Your task to perform on an android device: open sync settings in chrome Image 0: 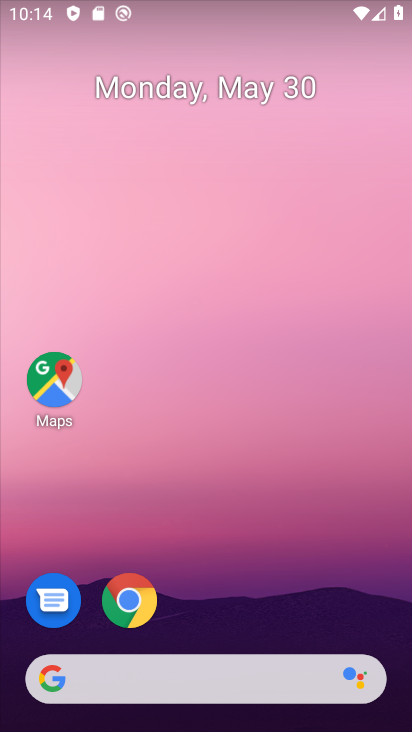
Step 0: click (131, 598)
Your task to perform on an android device: open sync settings in chrome Image 1: 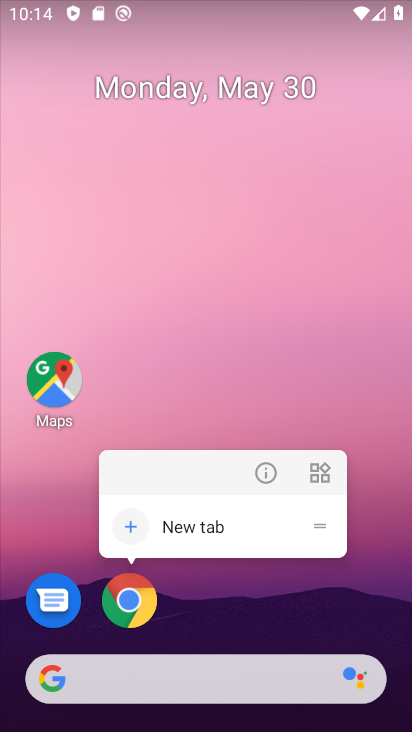
Step 1: click (381, 336)
Your task to perform on an android device: open sync settings in chrome Image 2: 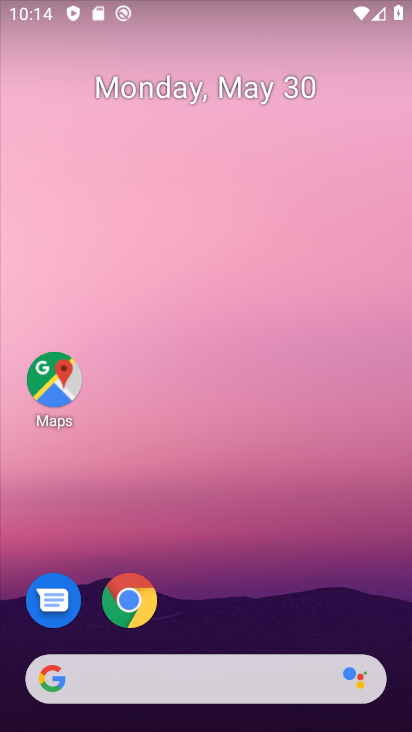
Step 2: drag from (355, 558) to (296, 81)
Your task to perform on an android device: open sync settings in chrome Image 3: 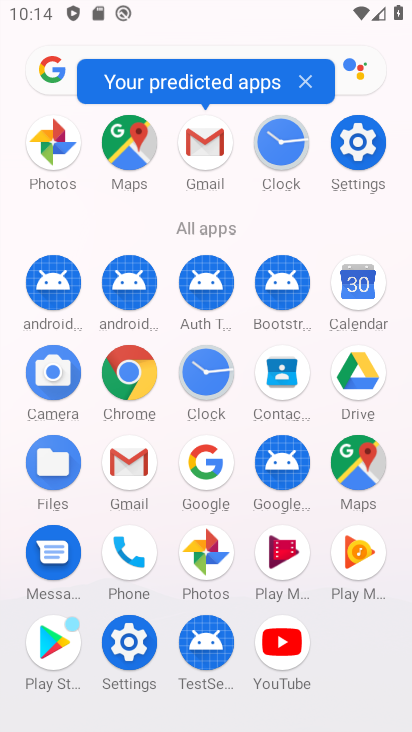
Step 3: click (128, 361)
Your task to perform on an android device: open sync settings in chrome Image 4: 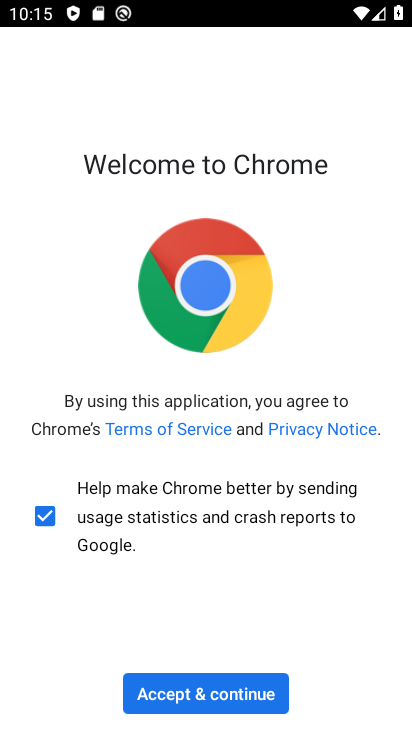
Step 4: click (198, 692)
Your task to perform on an android device: open sync settings in chrome Image 5: 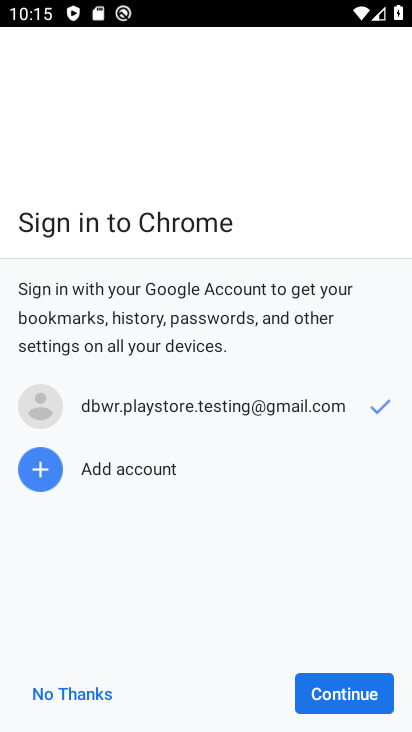
Step 5: click (355, 681)
Your task to perform on an android device: open sync settings in chrome Image 6: 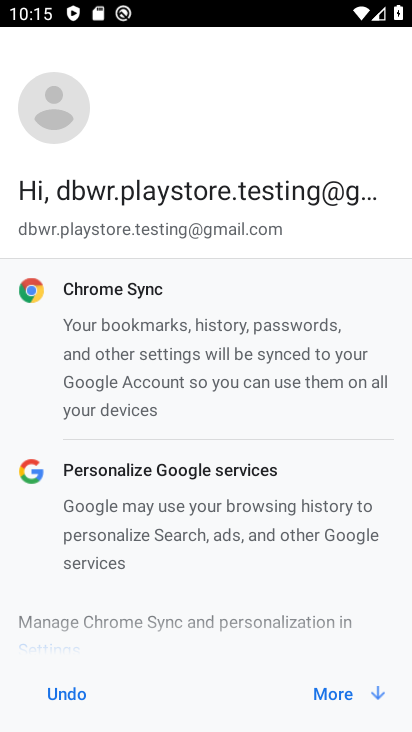
Step 6: click (350, 685)
Your task to perform on an android device: open sync settings in chrome Image 7: 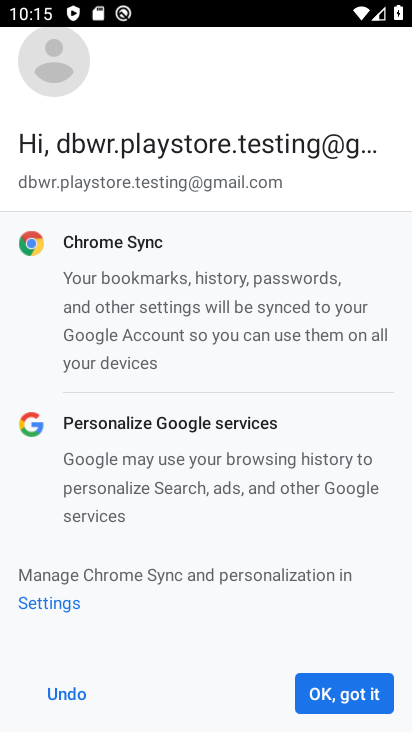
Step 7: click (350, 685)
Your task to perform on an android device: open sync settings in chrome Image 8: 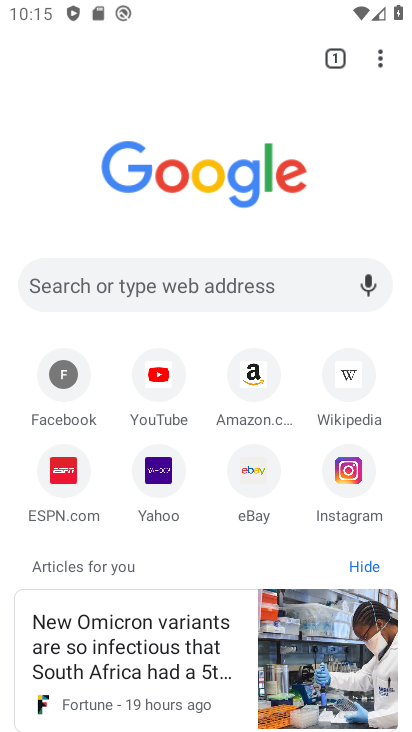
Step 8: click (384, 56)
Your task to perform on an android device: open sync settings in chrome Image 9: 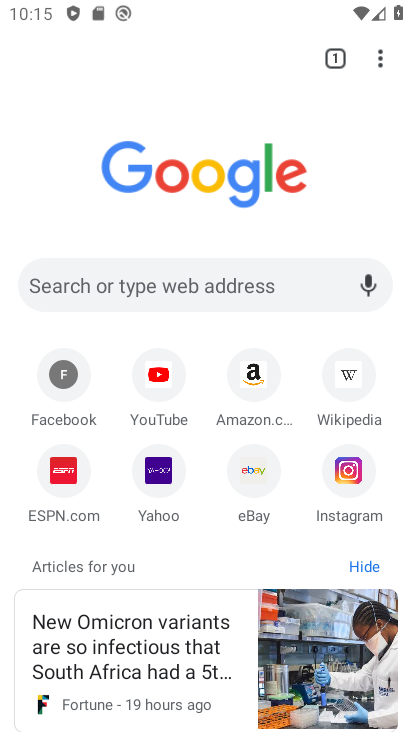
Step 9: drag from (384, 56) to (254, 497)
Your task to perform on an android device: open sync settings in chrome Image 10: 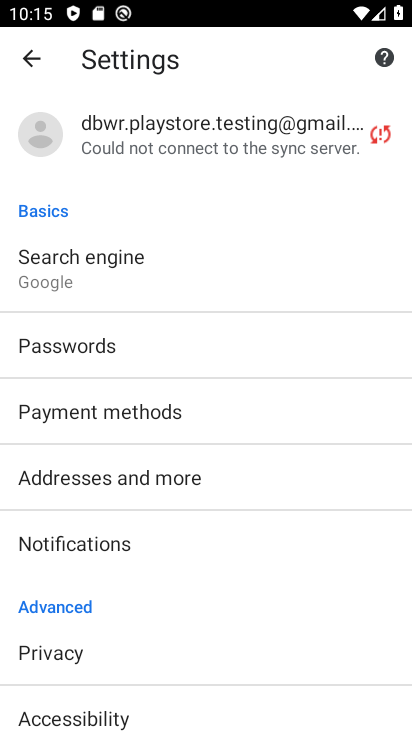
Step 10: click (81, 267)
Your task to perform on an android device: open sync settings in chrome Image 11: 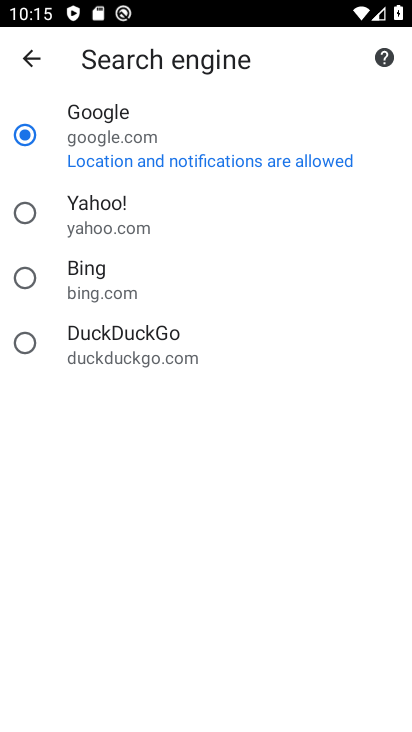
Step 11: task complete